Your task to perform on an android device: open chrome privacy settings Image 0: 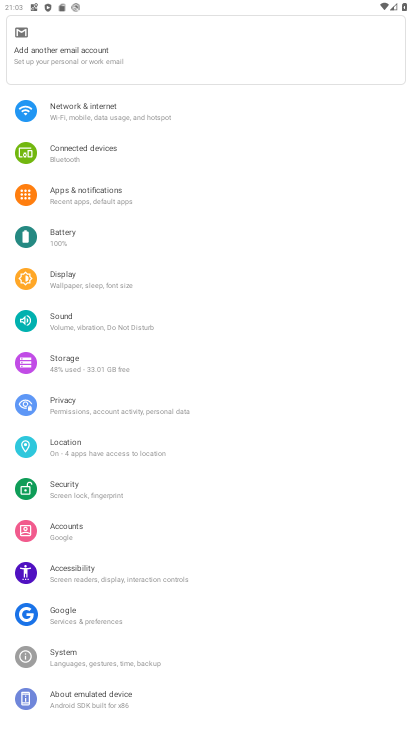
Step 0: press home button
Your task to perform on an android device: open chrome privacy settings Image 1: 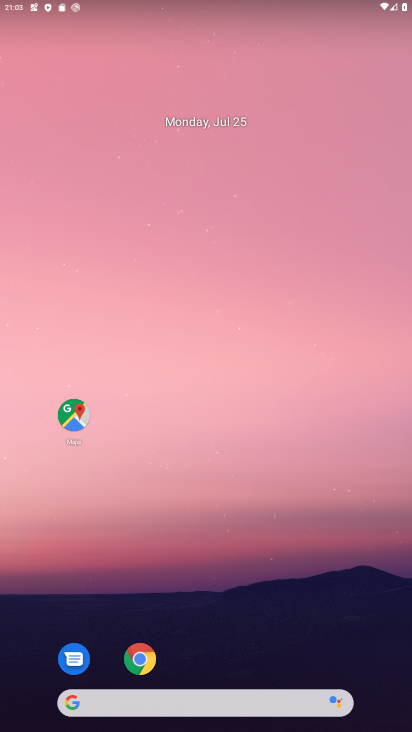
Step 1: click (150, 653)
Your task to perform on an android device: open chrome privacy settings Image 2: 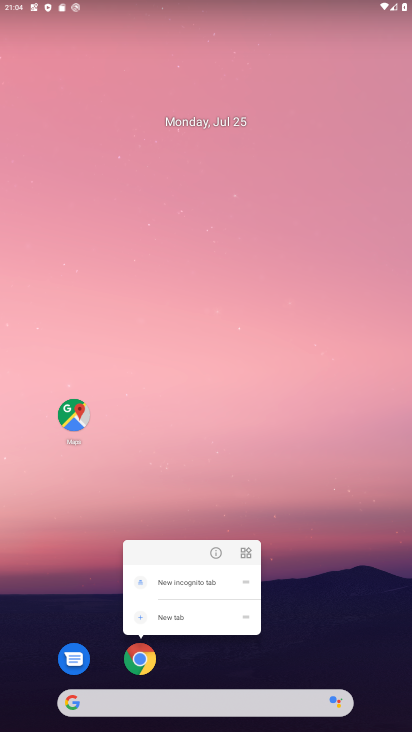
Step 2: click (143, 665)
Your task to perform on an android device: open chrome privacy settings Image 3: 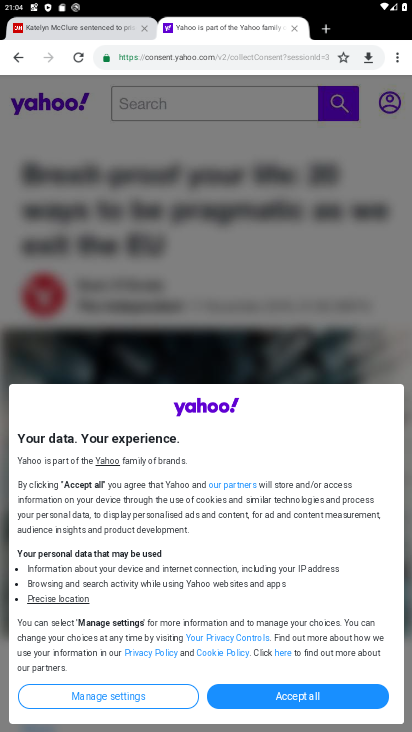
Step 3: click (396, 55)
Your task to perform on an android device: open chrome privacy settings Image 4: 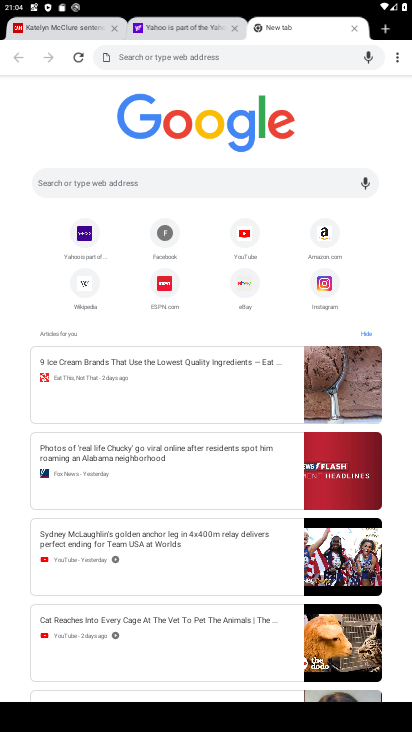
Step 4: click (395, 59)
Your task to perform on an android device: open chrome privacy settings Image 5: 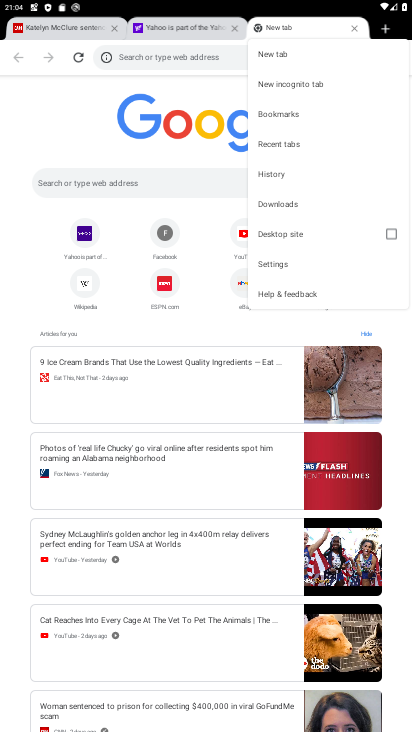
Step 5: click (265, 261)
Your task to perform on an android device: open chrome privacy settings Image 6: 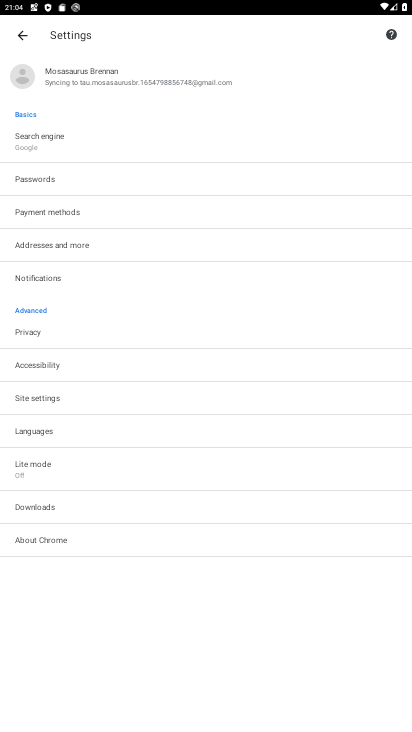
Step 6: click (46, 337)
Your task to perform on an android device: open chrome privacy settings Image 7: 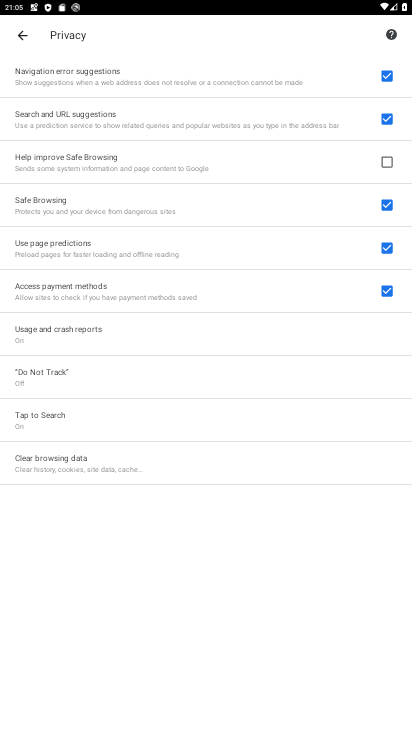
Step 7: task complete